Your task to perform on an android device: uninstall "Skype" Image 0: 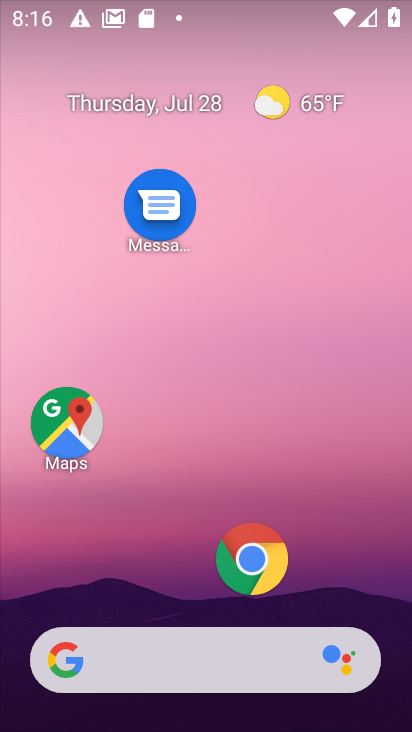
Step 0: drag from (182, 579) to (258, 207)
Your task to perform on an android device: uninstall "Skype" Image 1: 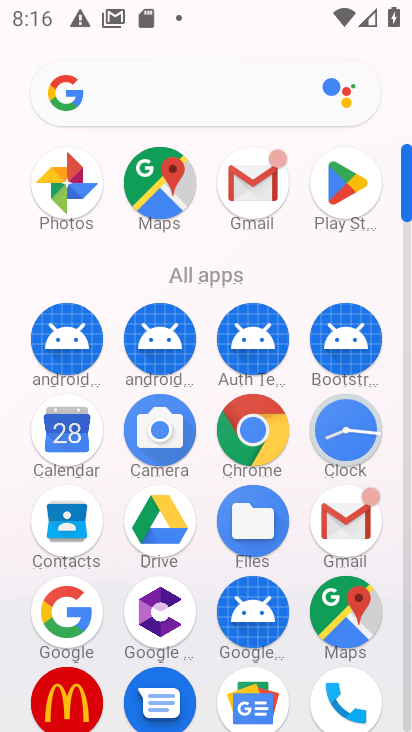
Step 1: click (335, 178)
Your task to perform on an android device: uninstall "Skype" Image 2: 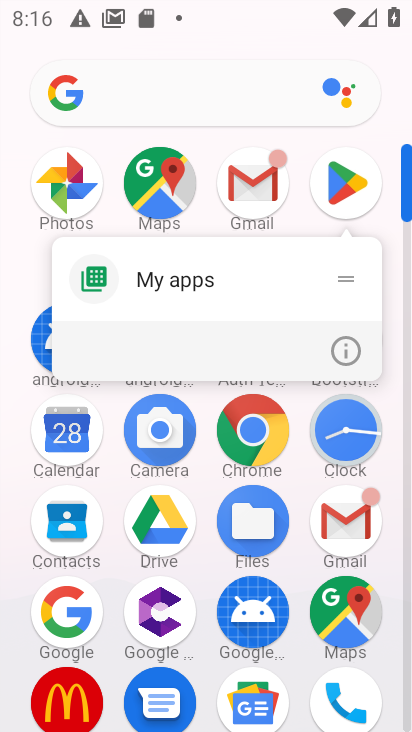
Step 2: click (338, 346)
Your task to perform on an android device: uninstall "Skype" Image 3: 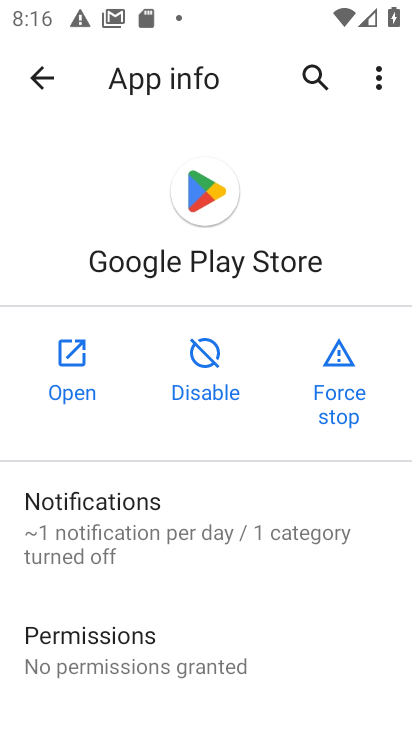
Step 3: click (77, 368)
Your task to perform on an android device: uninstall "Skype" Image 4: 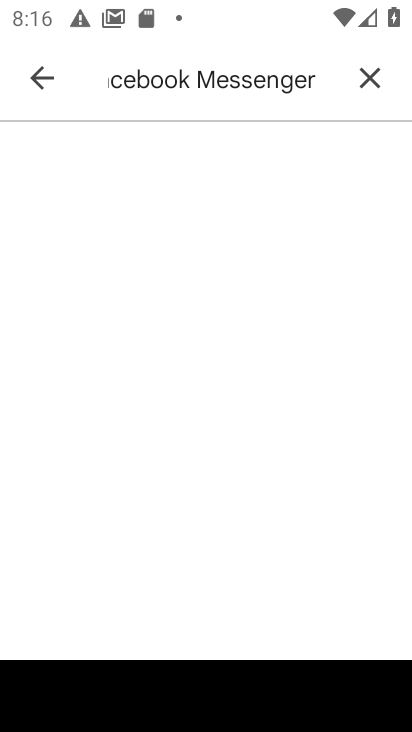
Step 4: click (361, 86)
Your task to perform on an android device: uninstall "Skype" Image 5: 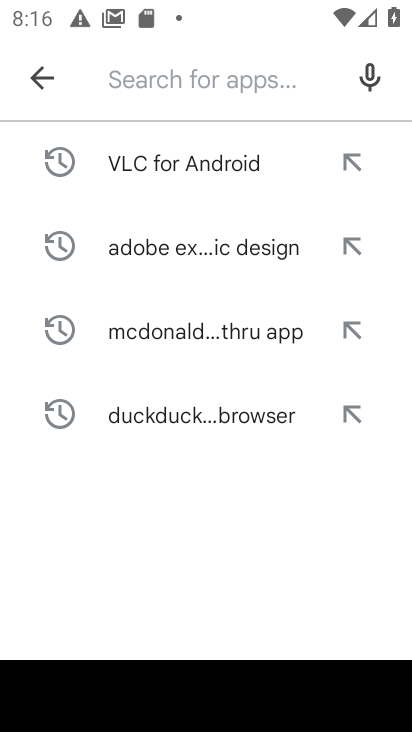
Step 5: click (42, 85)
Your task to perform on an android device: uninstall "Skype" Image 6: 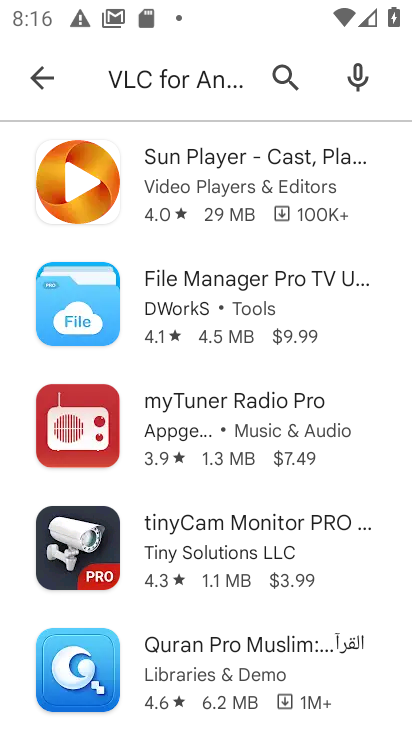
Step 6: press home button
Your task to perform on an android device: uninstall "Skype" Image 7: 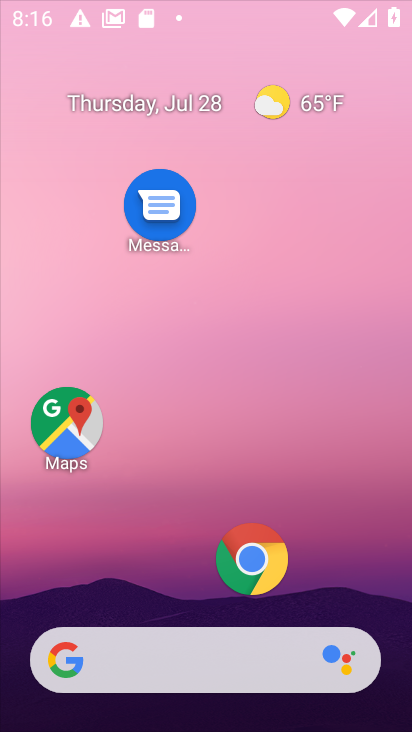
Step 7: drag from (222, 622) to (256, 4)
Your task to perform on an android device: uninstall "Skype" Image 8: 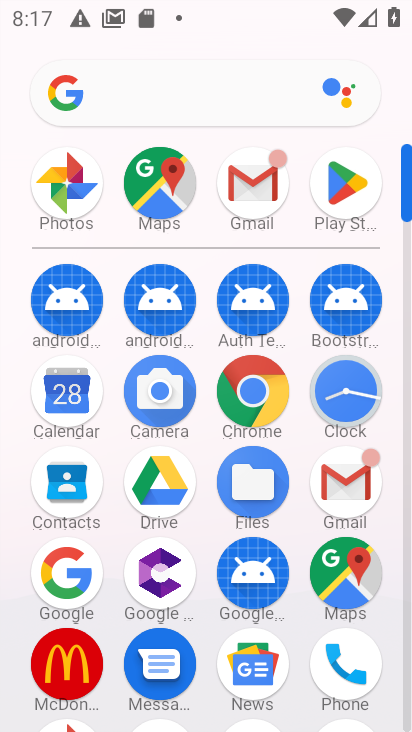
Step 8: click (334, 193)
Your task to perform on an android device: uninstall "Skype" Image 9: 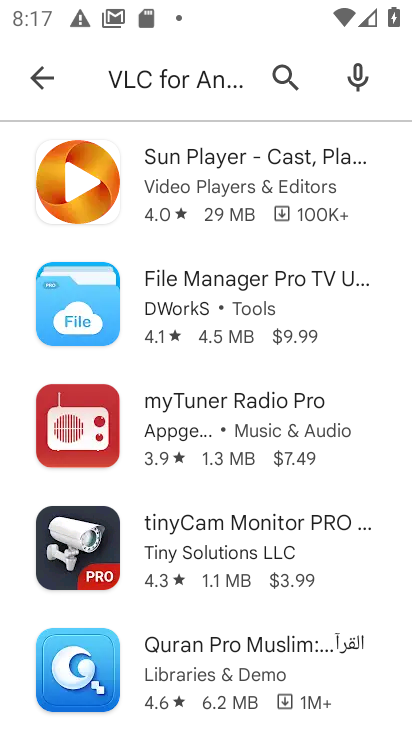
Step 9: click (289, 86)
Your task to perform on an android device: uninstall "Skype" Image 10: 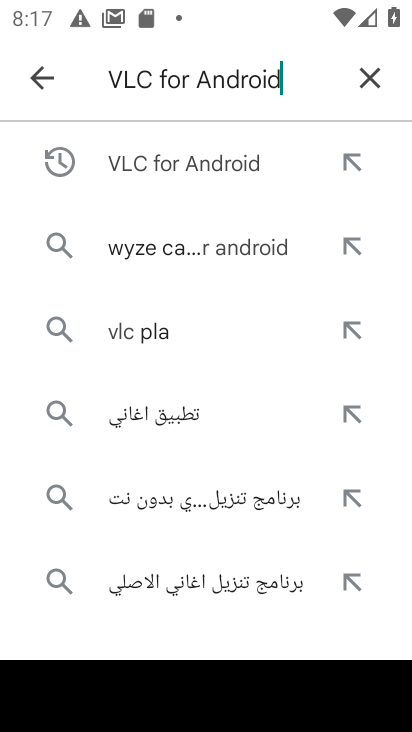
Step 10: click (370, 80)
Your task to perform on an android device: uninstall "Skype" Image 11: 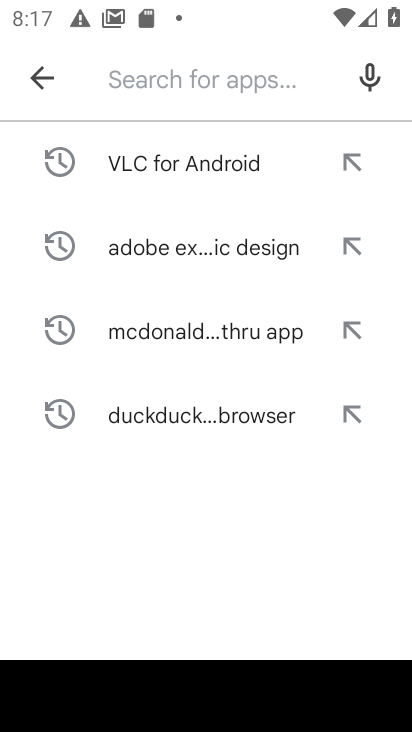
Step 11: type "Skype"
Your task to perform on an android device: uninstall "Skype" Image 12: 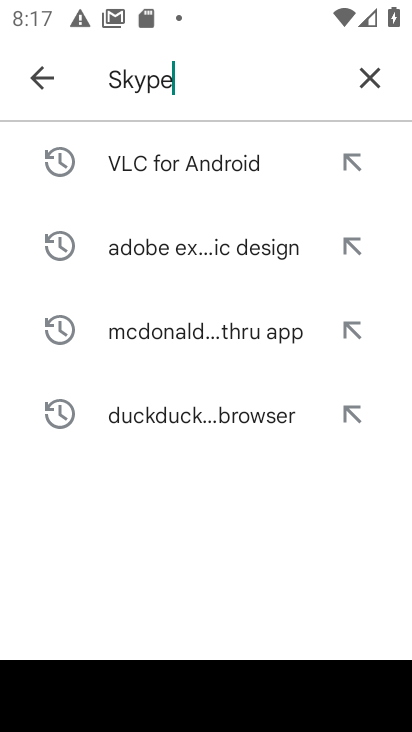
Step 12: type ""
Your task to perform on an android device: uninstall "Skype" Image 13: 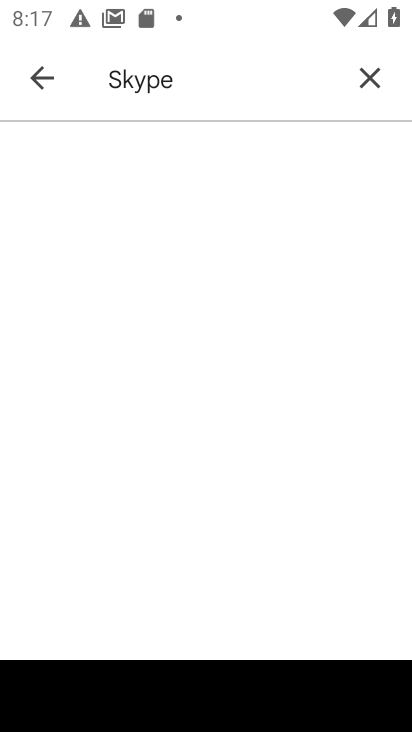
Step 13: click (187, 174)
Your task to perform on an android device: uninstall "Skype" Image 14: 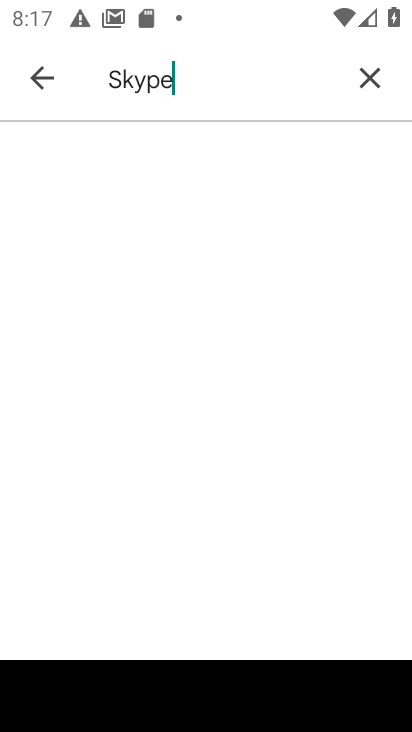
Step 14: click (187, 174)
Your task to perform on an android device: uninstall "Skype" Image 15: 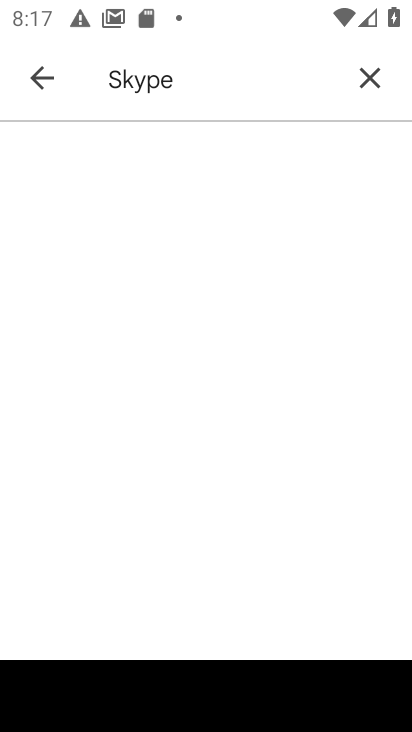
Step 15: task complete